Your task to perform on an android device: set the timer Image 0: 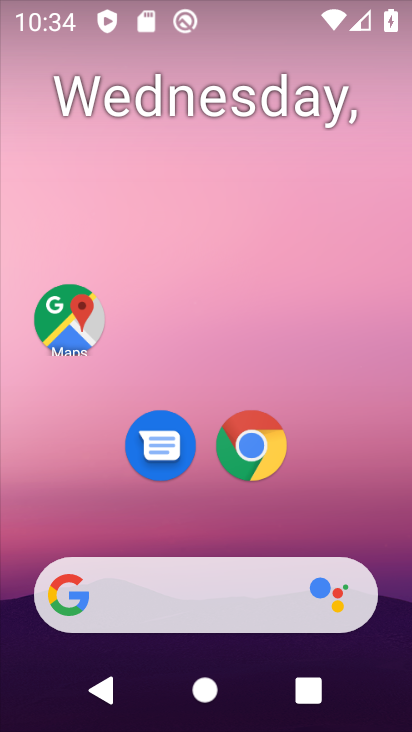
Step 0: drag from (181, 523) to (224, 18)
Your task to perform on an android device: set the timer Image 1: 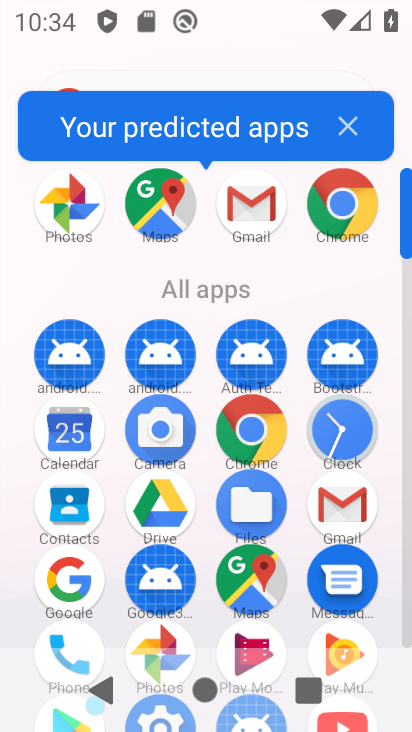
Step 1: click (344, 435)
Your task to perform on an android device: set the timer Image 2: 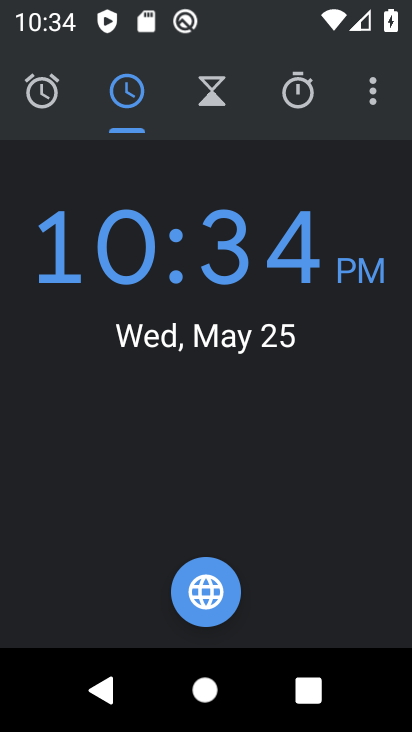
Step 2: click (223, 92)
Your task to perform on an android device: set the timer Image 3: 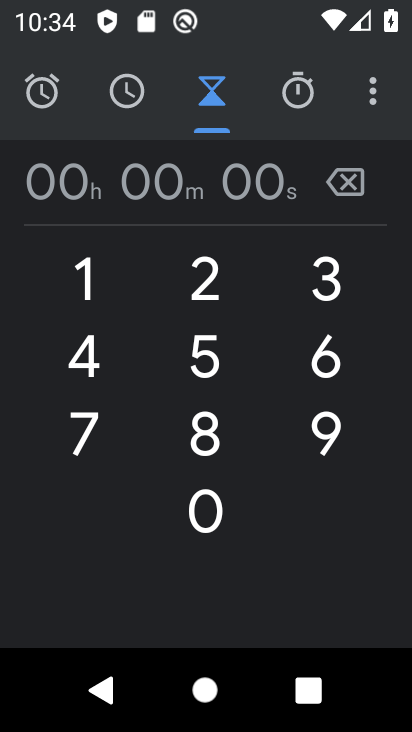
Step 3: click (216, 237)
Your task to perform on an android device: set the timer Image 4: 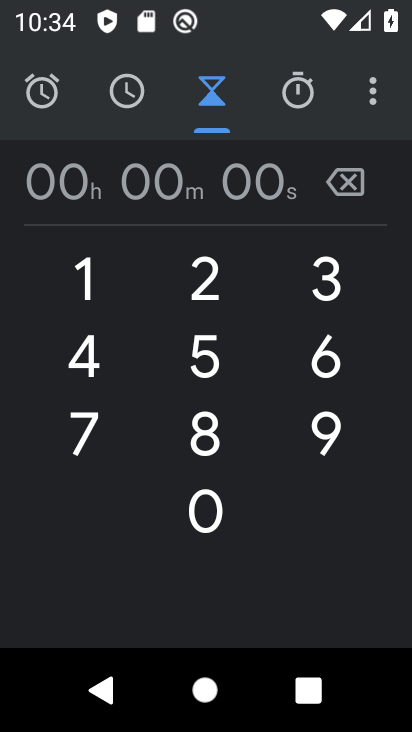
Step 4: click (347, 265)
Your task to perform on an android device: set the timer Image 5: 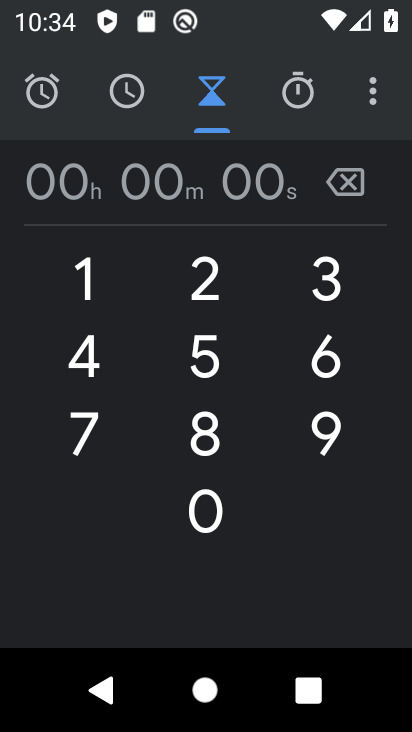
Step 5: click (150, 344)
Your task to perform on an android device: set the timer Image 6: 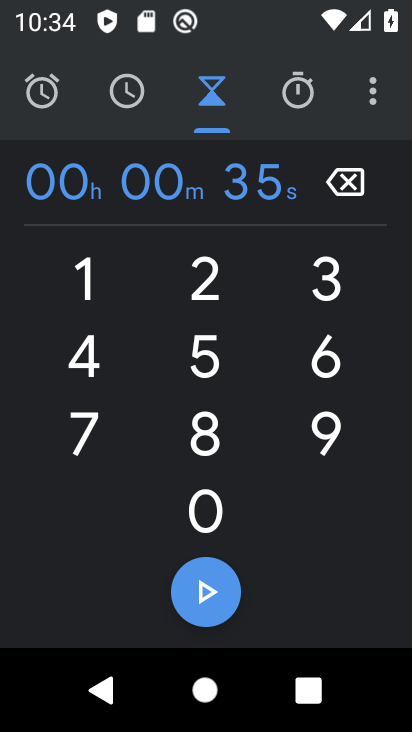
Step 6: click (192, 305)
Your task to perform on an android device: set the timer Image 7: 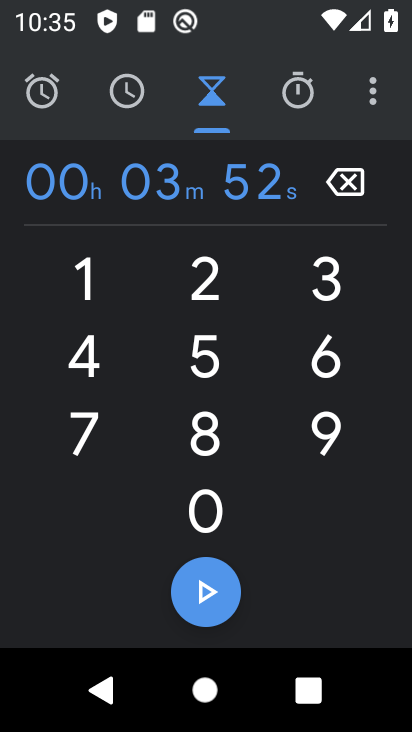
Step 7: task complete